Your task to perform on an android device: What's on my calendar today? Image 0: 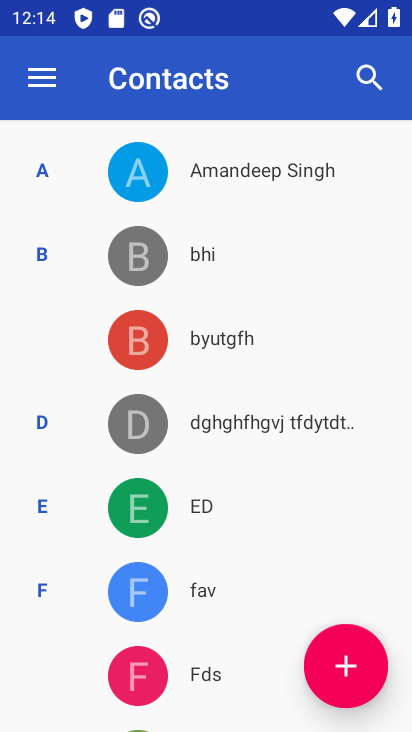
Step 0: press back button
Your task to perform on an android device: What's on my calendar today? Image 1: 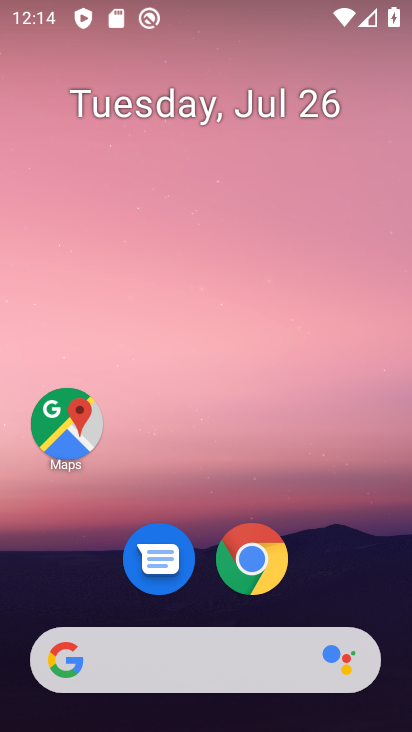
Step 1: drag from (84, 594) to (211, 18)
Your task to perform on an android device: What's on my calendar today? Image 2: 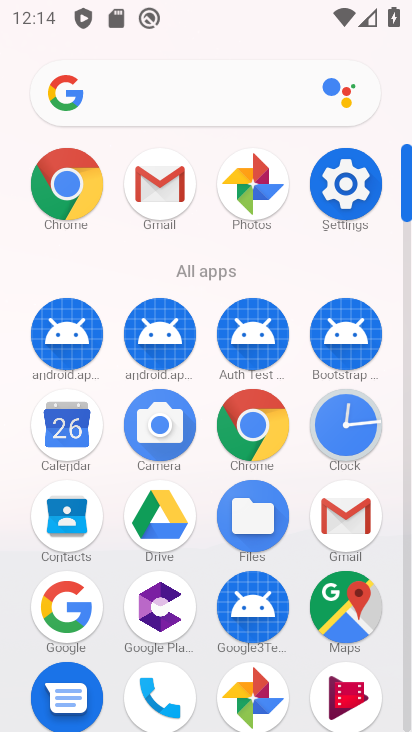
Step 2: click (66, 419)
Your task to perform on an android device: What's on my calendar today? Image 3: 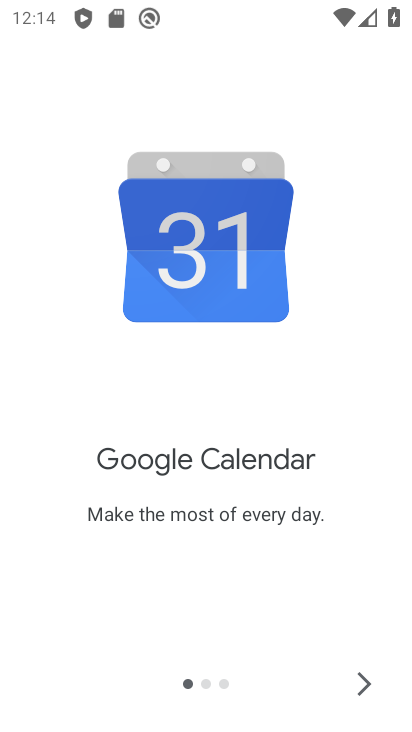
Step 3: click (359, 671)
Your task to perform on an android device: What's on my calendar today? Image 4: 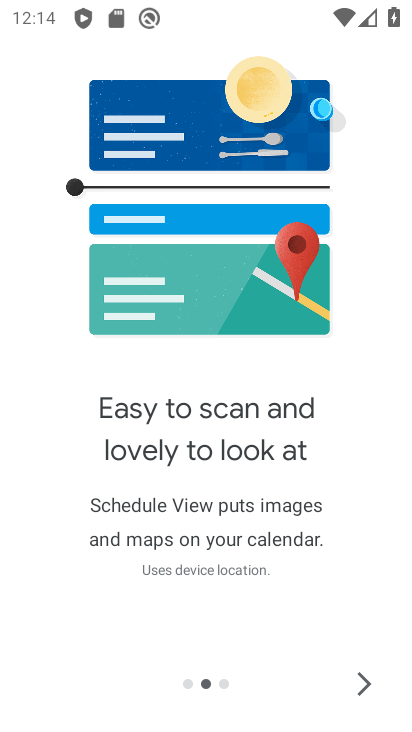
Step 4: click (372, 670)
Your task to perform on an android device: What's on my calendar today? Image 5: 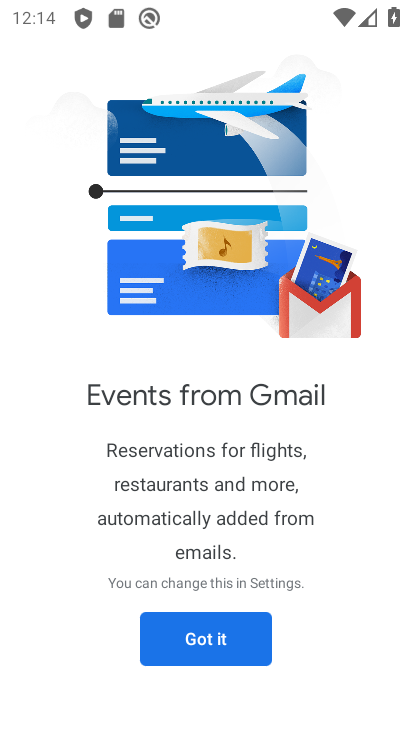
Step 5: click (222, 643)
Your task to perform on an android device: What's on my calendar today? Image 6: 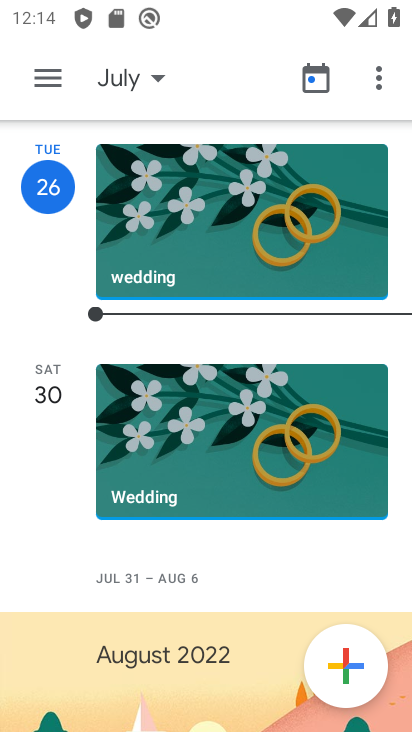
Step 6: click (145, 75)
Your task to perform on an android device: What's on my calendar today? Image 7: 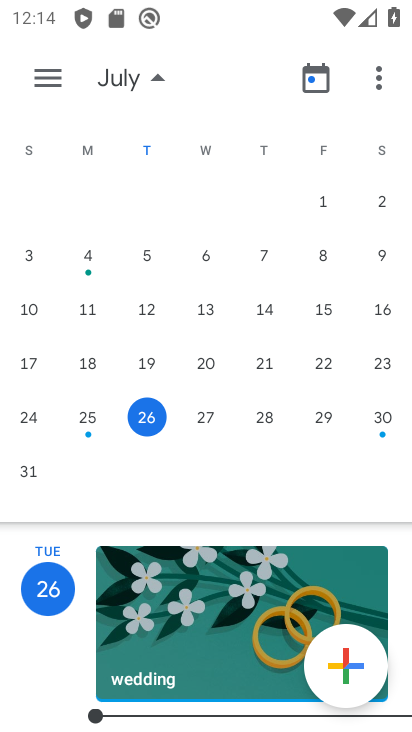
Step 7: click (82, 417)
Your task to perform on an android device: What's on my calendar today? Image 8: 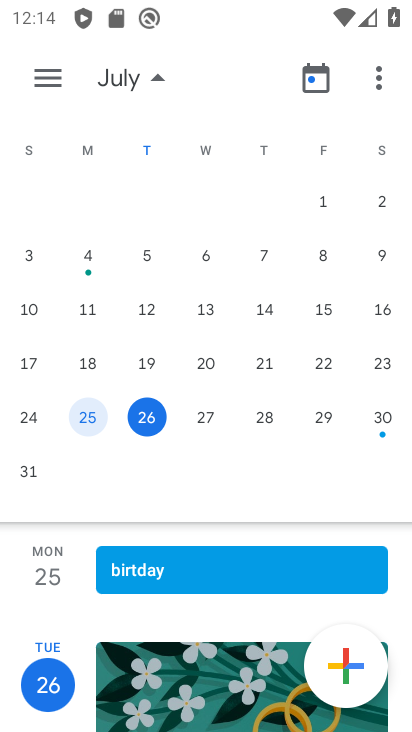
Step 8: click (156, 422)
Your task to perform on an android device: What's on my calendar today? Image 9: 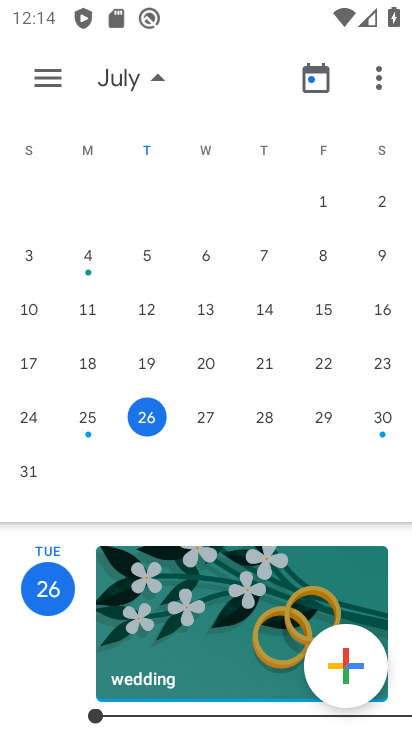
Step 9: task complete